Your task to perform on an android device: open chrome and create a bookmark for the current page Image 0: 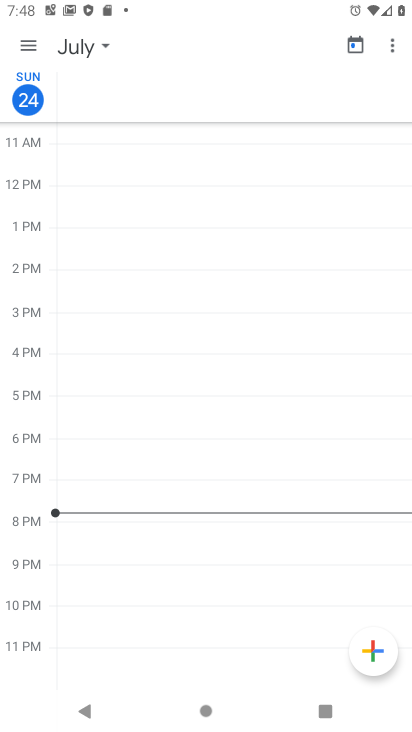
Step 0: press home button
Your task to perform on an android device: open chrome and create a bookmark for the current page Image 1: 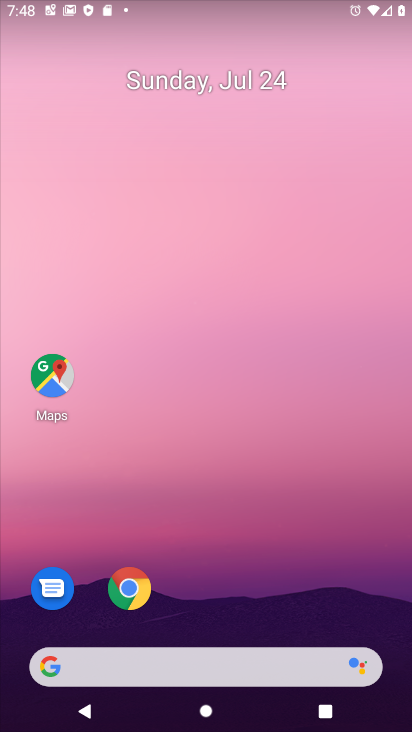
Step 1: drag from (271, 615) to (256, 10)
Your task to perform on an android device: open chrome and create a bookmark for the current page Image 2: 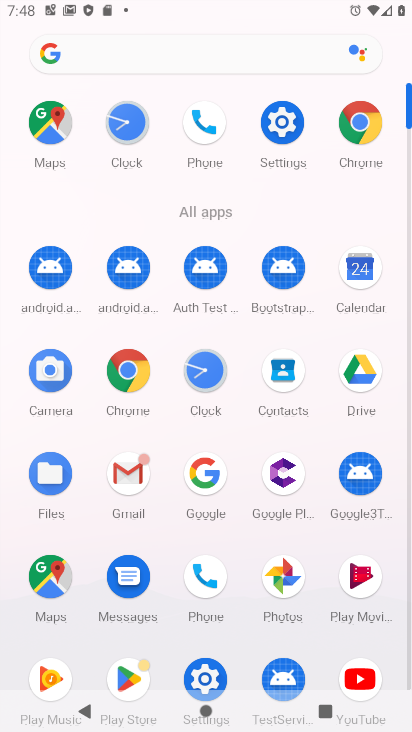
Step 2: click (362, 124)
Your task to perform on an android device: open chrome and create a bookmark for the current page Image 3: 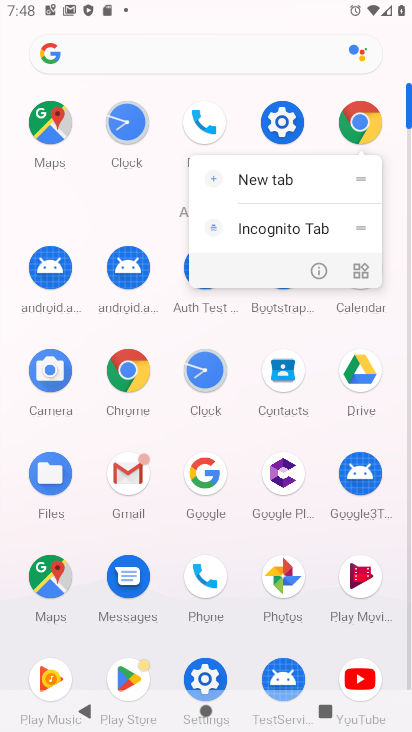
Step 3: click (362, 123)
Your task to perform on an android device: open chrome and create a bookmark for the current page Image 4: 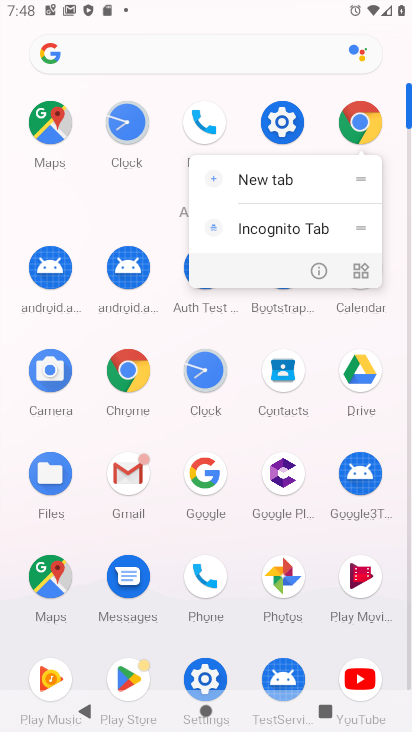
Step 4: click (362, 123)
Your task to perform on an android device: open chrome and create a bookmark for the current page Image 5: 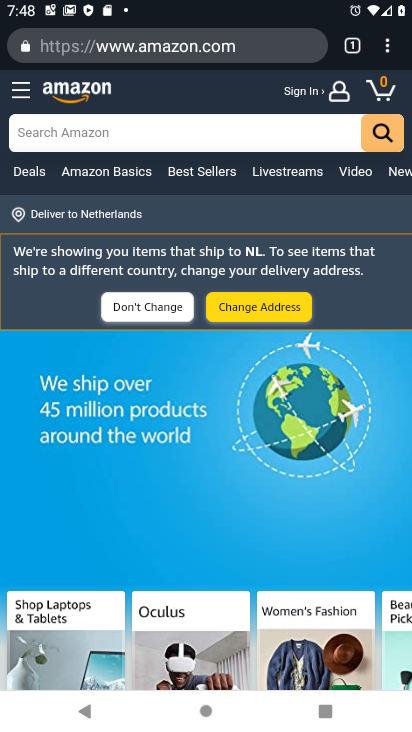
Step 5: task complete